Your task to perform on an android device: change the upload size in google photos Image 0: 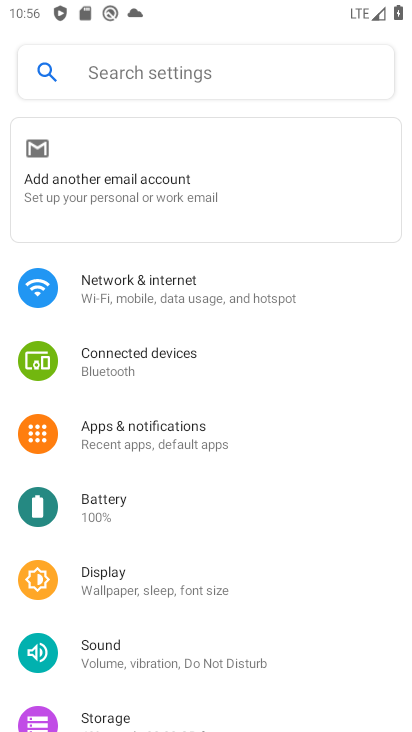
Step 0: press home button
Your task to perform on an android device: change the upload size in google photos Image 1: 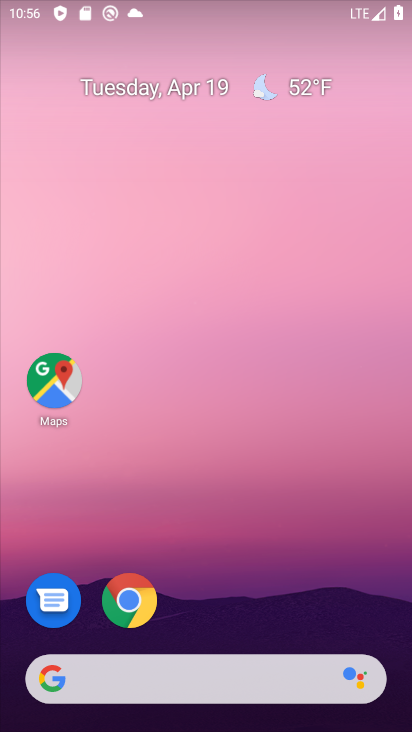
Step 1: drag from (374, 620) to (234, 19)
Your task to perform on an android device: change the upload size in google photos Image 2: 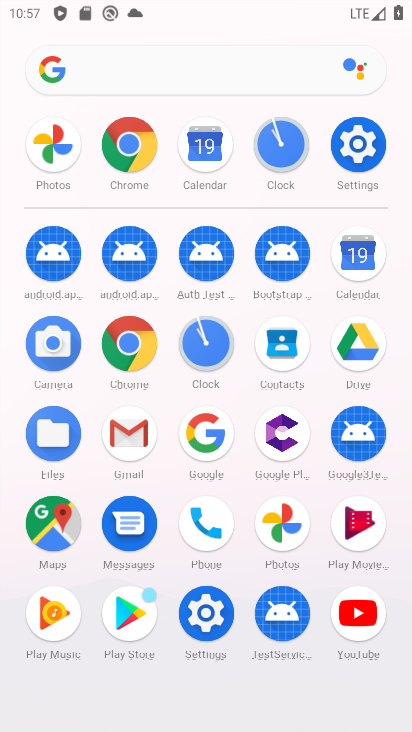
Step 2: click (288, 523)
Your task to perform on an android device: change the upload size in google photos Image 3: 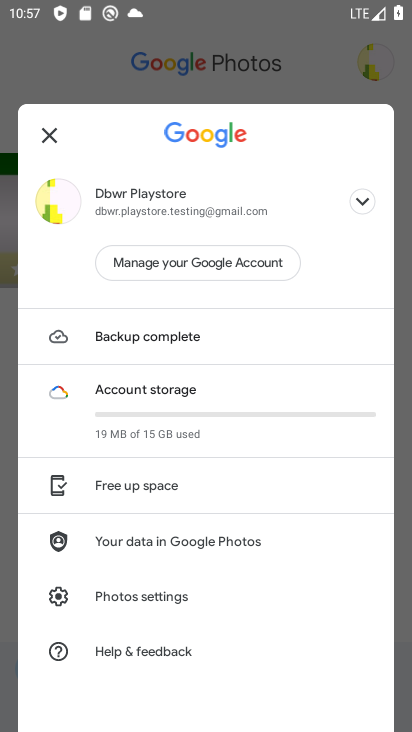
Step 3: click (166, 606)
Your task to perform on an android device: change the upload size in google photos Image 4: 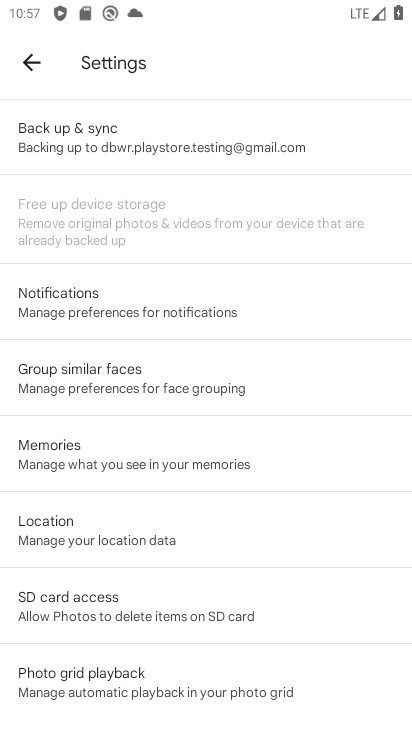
Step 4: click (128, 148)
Your task to perform on an android device: change the upload size in google photos Image 5: 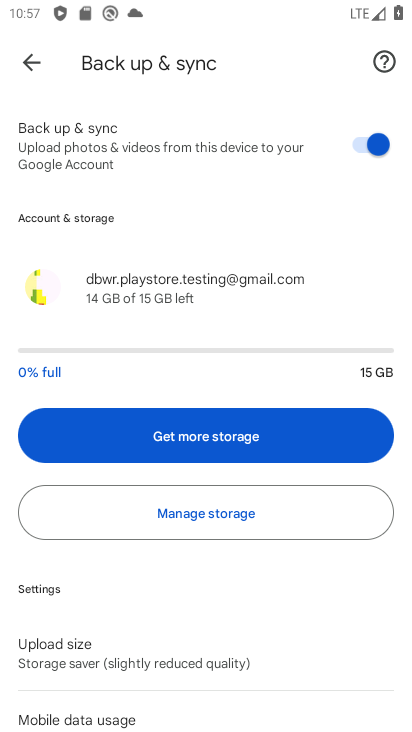
Step 5: click (148, 653)
Your task to perform on an android device: change the upload size in google photos Image 6: 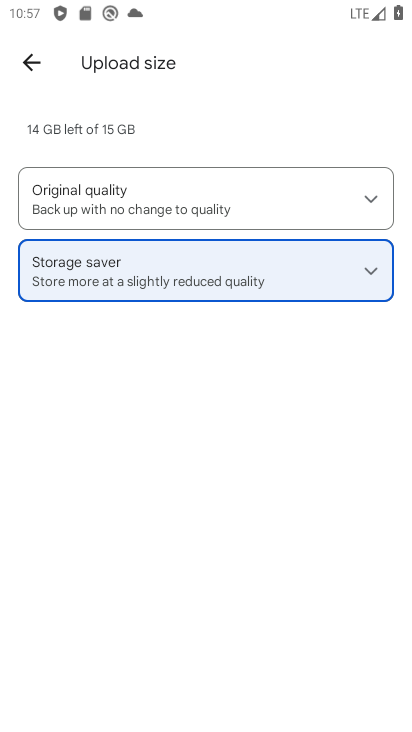
Step 6: click (201, 192)
Your task to perform on an android device: change the upload size in google photos Image 7: 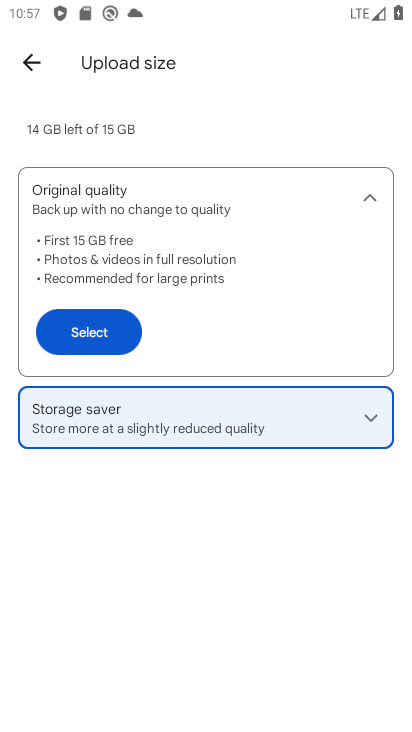
Step 7: click (91, 325)
Your task to perform on an android device: change the upload size in google photos Image 8: 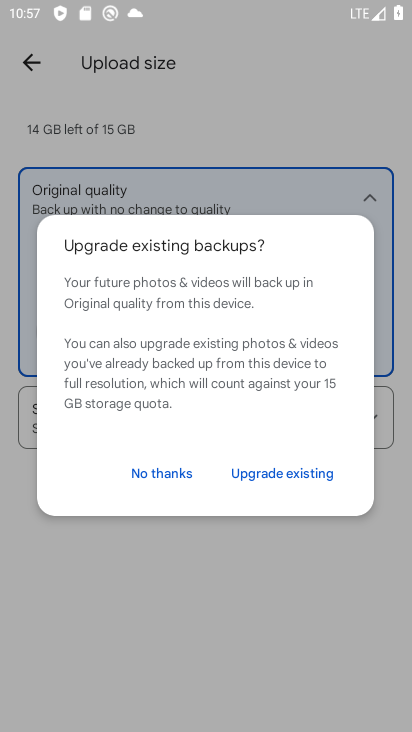
Step 8: click (261, 474)
Your task to perform on an android device: change the upload size in google photos Image 9: 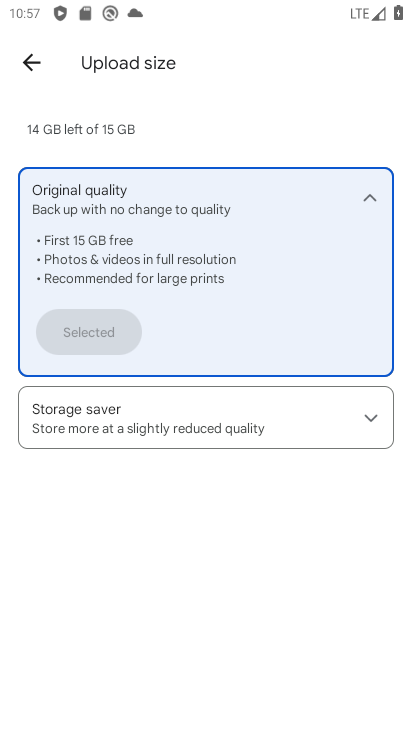
Step 9: task complete